Your task to perform on an android device: turn off wifi Image 0: 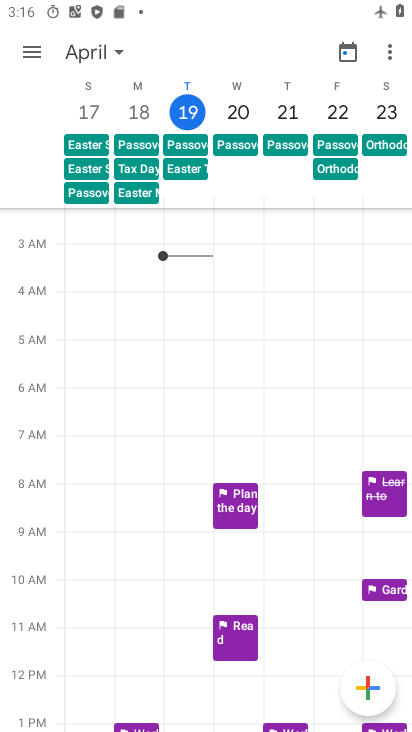
Step 0: press home button
Your task to perform on an android device: turn off wifi Image 1: 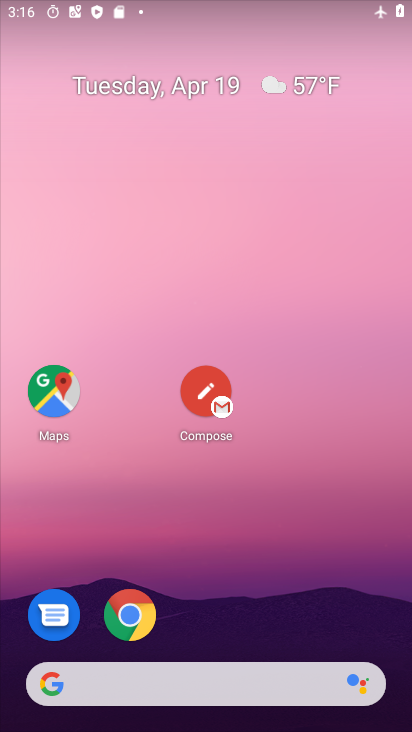
Step 1: drag from (292, 558) to (297, 31)
Your task to perform on an android device: turn off wifi Image 2: 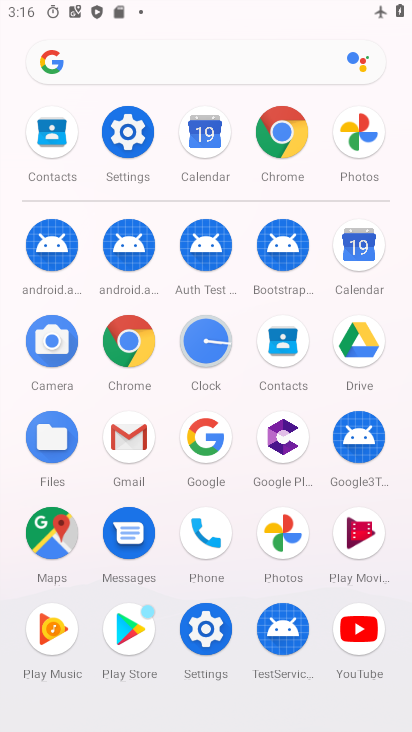
Step 2: click (139, 145)
Your task to perform on an android device: turn off wifi Image 3: 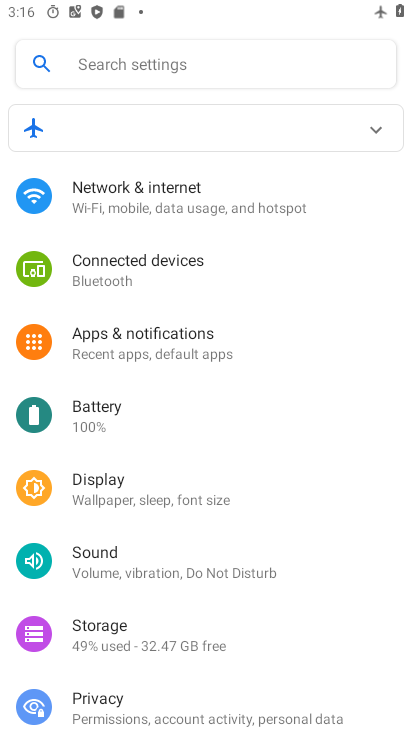
Step 3: click (186, 211)
Your task to perform on an android device: turn off wifi Image 4: 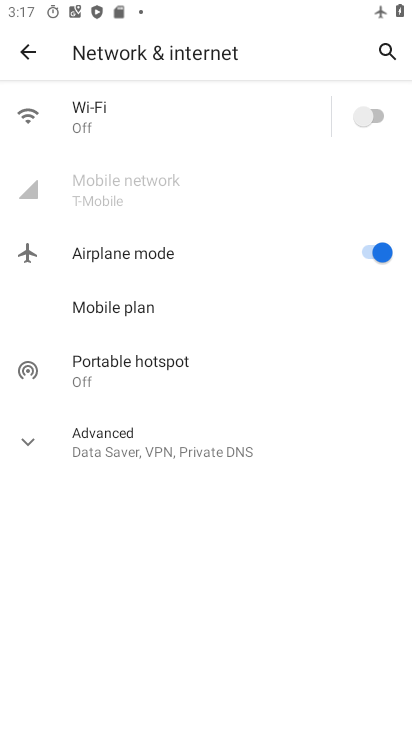
Step 4: task complete